Your task to perform on an android device: Go to wifi settings Image 0: 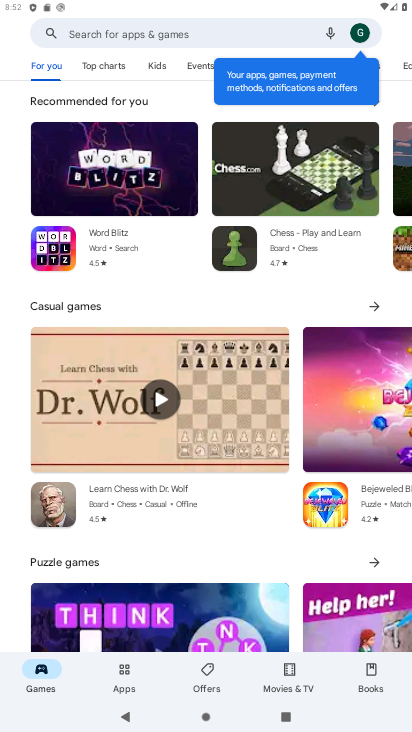
Step 0: press home button
Your task to perform on an android device: Go to wifi settings Image 1: 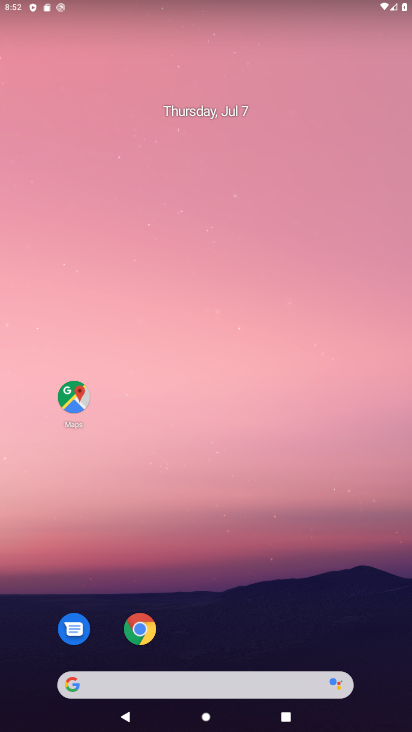
Step 1: drag from (204, 520) to (163, 117)
Your task to perform on an android device: Go to wifi settings Image 2: 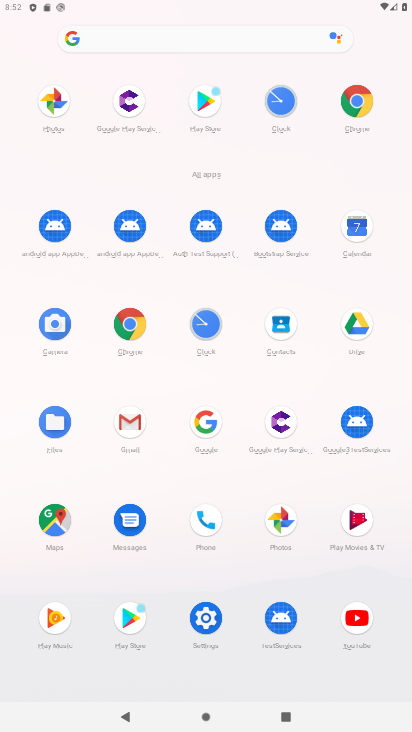
Step 2: click (197, 612)
Your task to perform on an android device: Go to wifi settings Image 3: 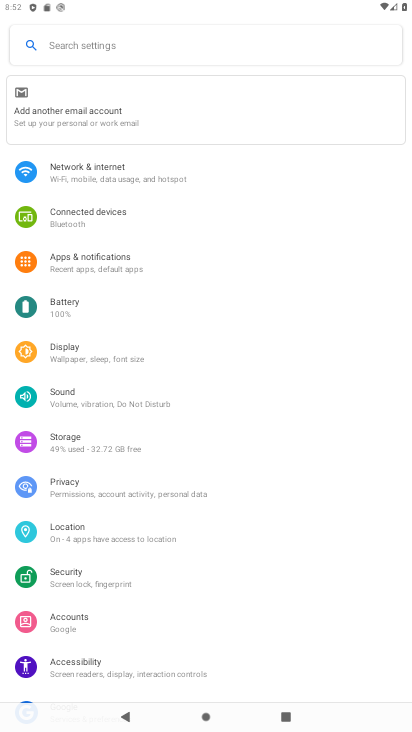
Step 3: click (71, 164)
Your task to perform on an android device: Go to wifi settings Image 4: 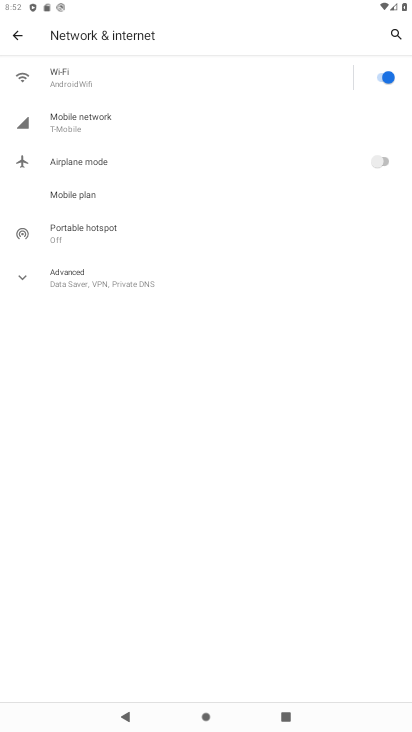
Step 4: click (108, 74)
Your task to perform on an android device: Go to wifi settings Image 5: 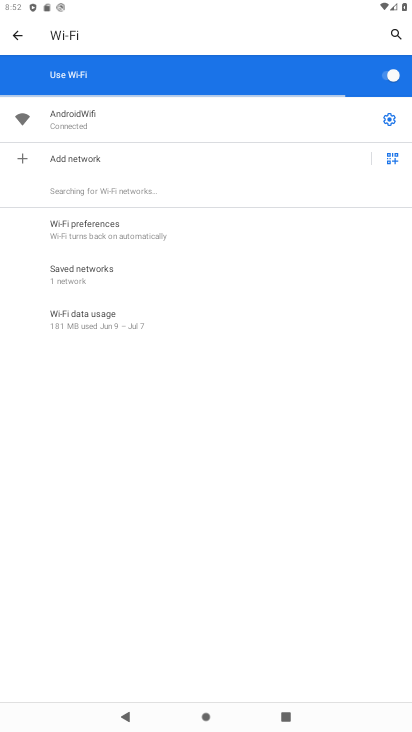
Step 5: task complete